Your task to perform on an android device: Open Android settings Image 0: 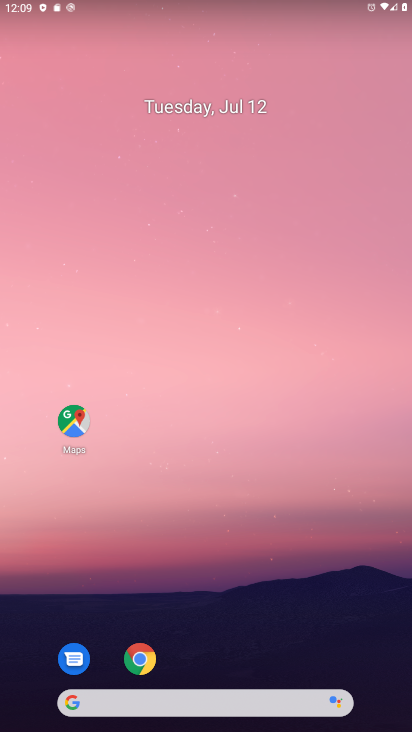
Step 0: drag from (200, 653) to (217, 13)
Your task to perform on an android device: Open Android settings Image 1: 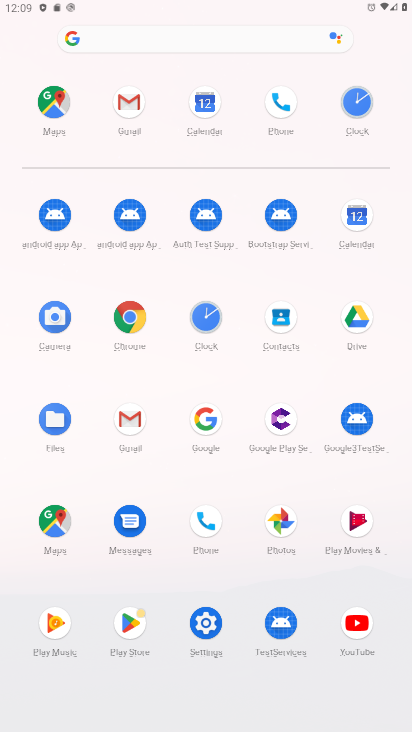
Step 1: click (206, 628)
Your task to perform on an android device: Open Android settings Image 2: 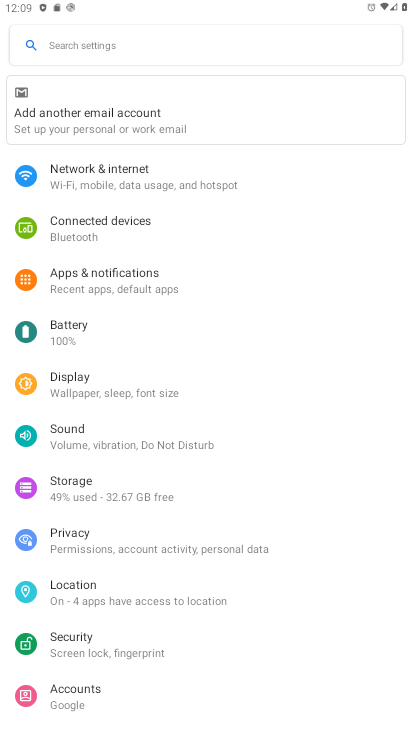
Step 2: drag from (133, 617) to (212, 294)
Your task to perform on an android device: Open Android settings Image 3: 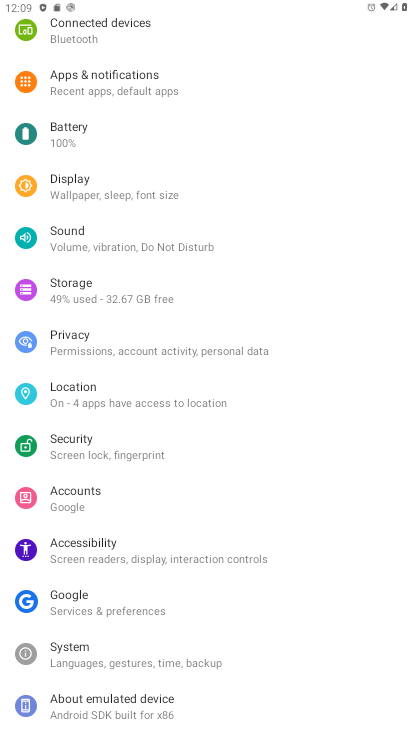
Step 3: click (102, 704)
Your task to perform on an android device: Open Android settings Image 4: 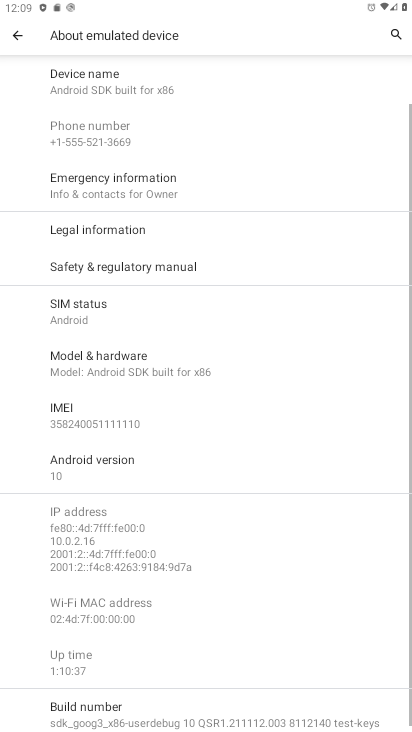
Step 4: drag from (118, 665) to (232, 251)
Your task to perform on an android device: Open Android settings Image 5: 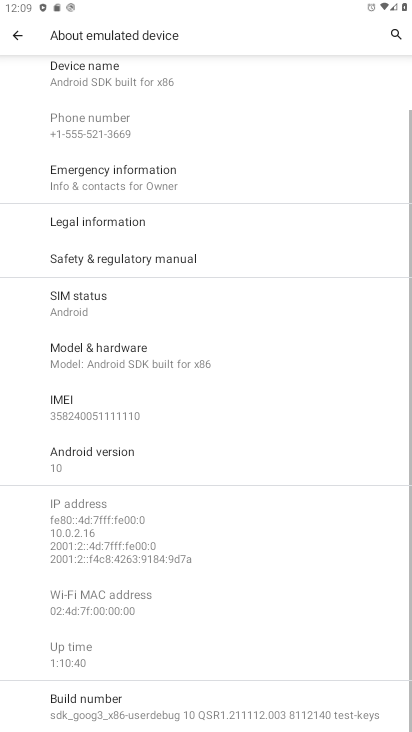
Step 5: click (97, 443)
Your task to perform on an android device: Open Android settings Image 6: 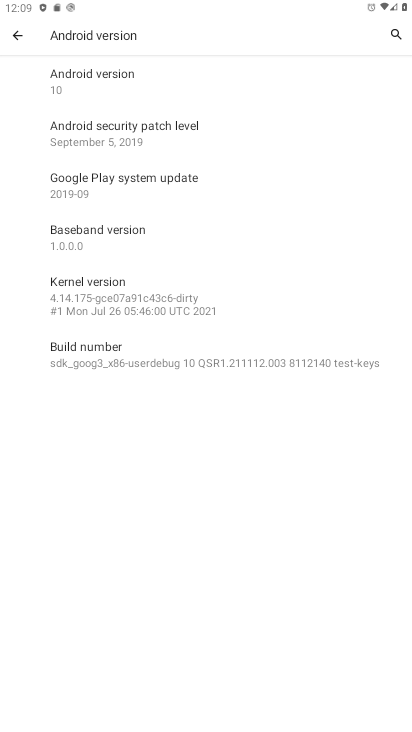
Step 6: task complete